Your task to perform on an android device: Search for seafood restaurants on Google Maps Image 0: 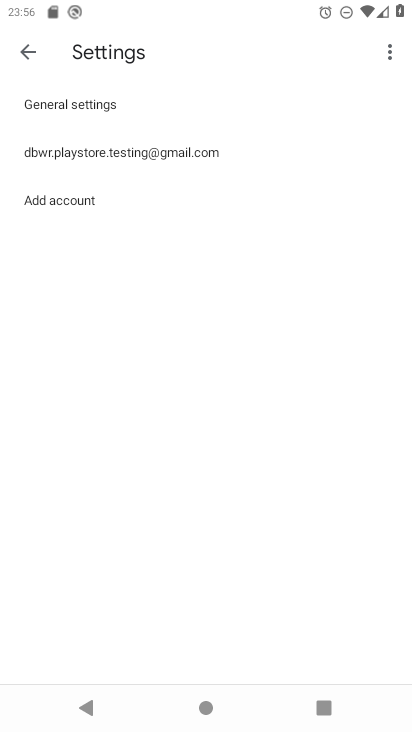
Step 0: press home button
Your task to perform on an android device: Search for seafood restaurants on Google Maps Image 1: 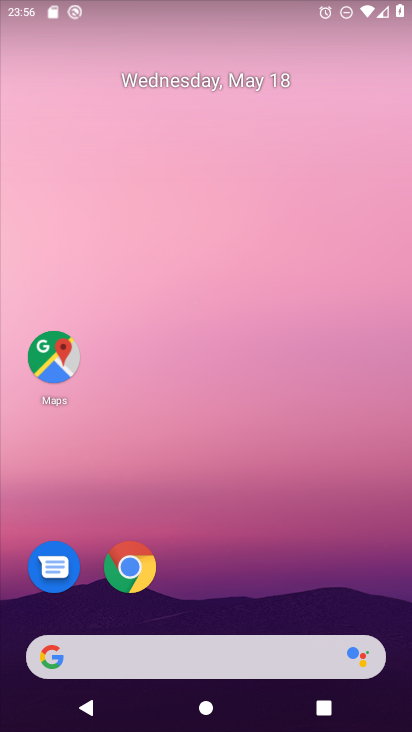
Step 1: drag from (264, 682) to (337, 101)
Your task to perform on an android device: Search for seafood restaurants on Google Maps Image 2: 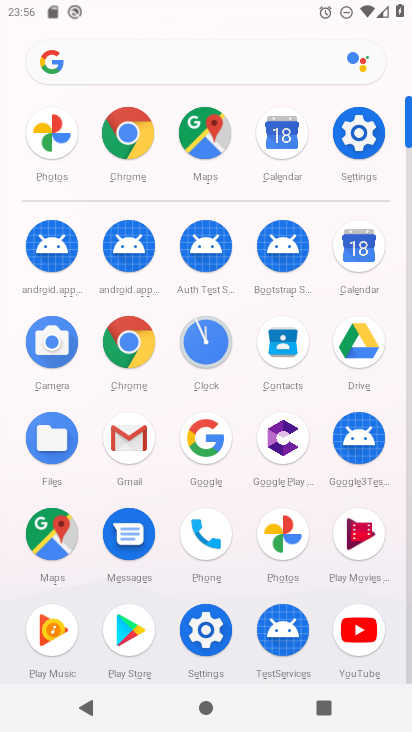
Step 2: click (56, 527)
Your task to perform on an android device: Search for seafood restaurants on Google Maps Image 3: 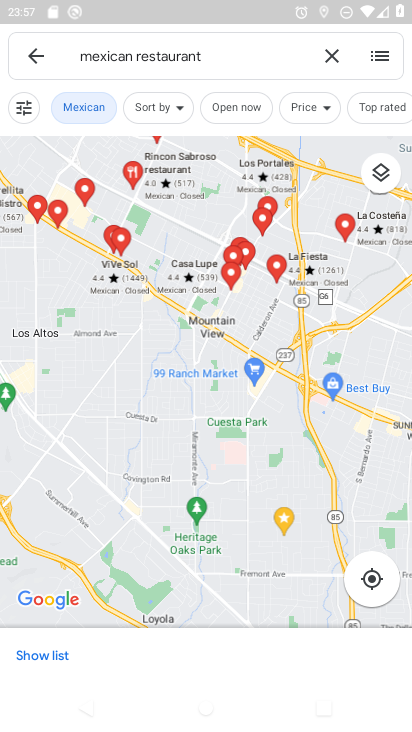
Step 3: click (151, 220)
Your task to perform on an android device: Search for seafood restaurants on Google Maps Image 4: 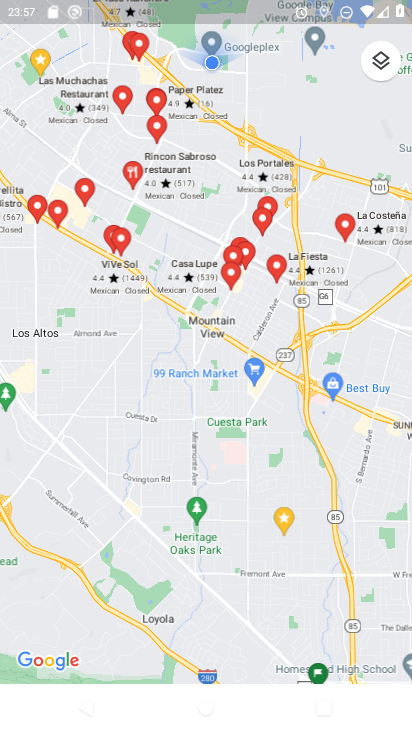
Step 4: task complete